Your task to perform on an android device: Is it going to rain tomorrow? Image 0: 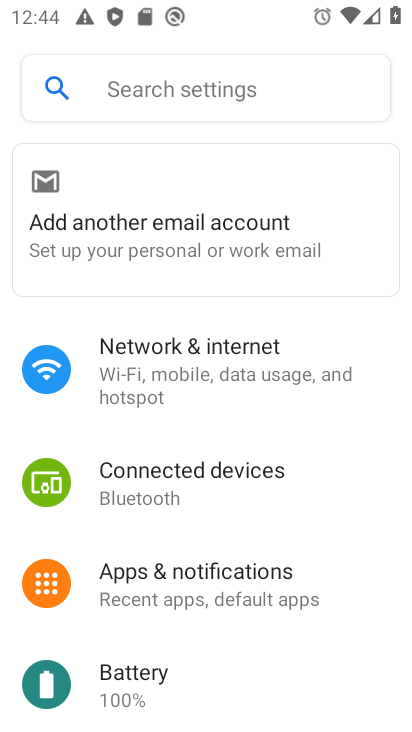
Step 0: press home button
Your task to perform on an android device: Is it going to rain tomorrow? Image 1: 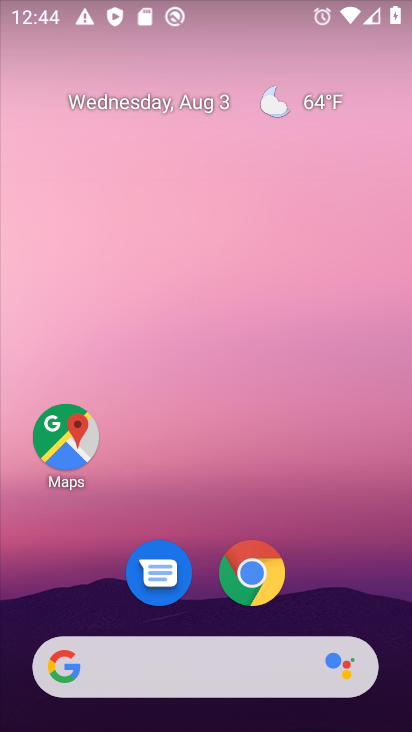
Step 1: drag from (243, 641) to (282, 140)
Your task to perform on an android device: Is it going to rain tomorrow? Image 2: 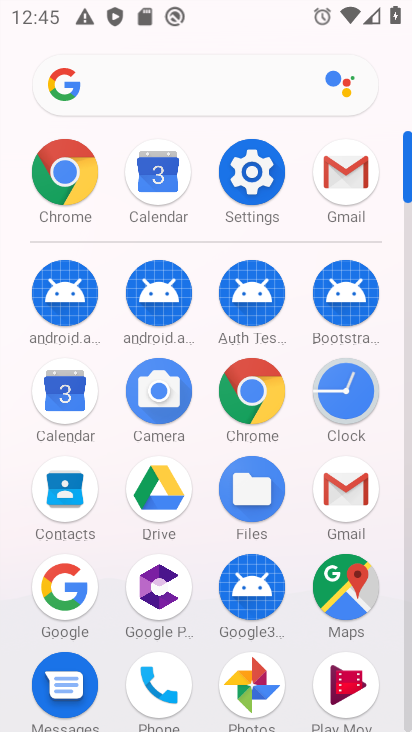
Step 2: click (69, 585)
Your task to perform on an android device: Is it going to rain tomorrow? Image 3: 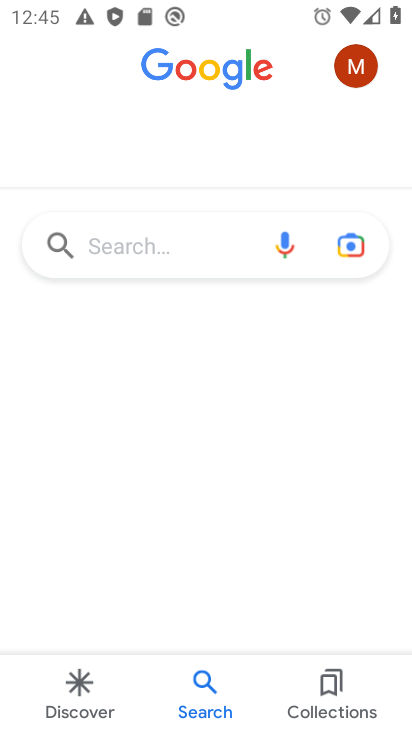
Step 3: click (203, 257)
Your task to perform on an android device: Is it going to rain tomorrow? Image 4: 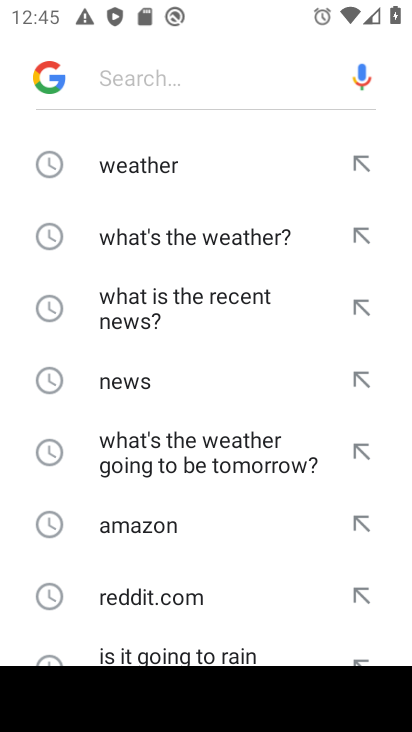
Step 4: click (177, 173)
Your task to perform on an android device: Is it going to rain tomorrow? Image 5: 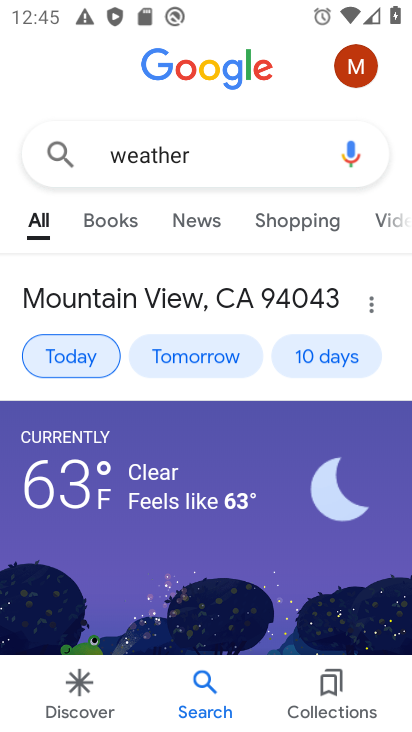
Step 5: task complete